Your task to perform on an android device: check google app version Image 0: 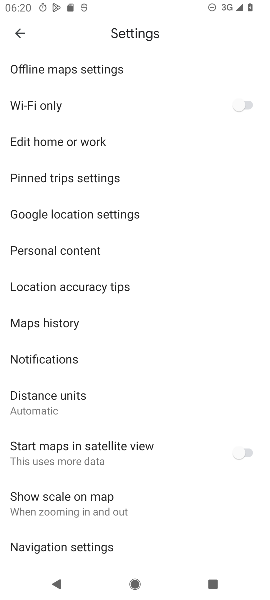
Step 0: press home button
Your task to perform on an android device: check google app version Image 1: 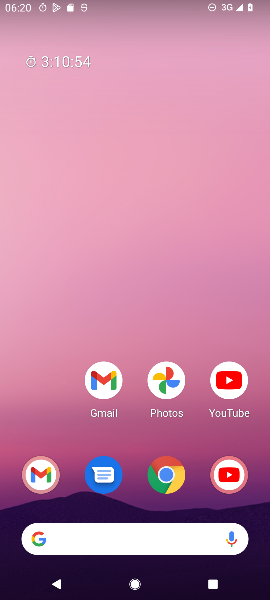
Step 1: drag from (65, 428) to (65, 158)
Your task to perform on an android device: check google app version Image 2: 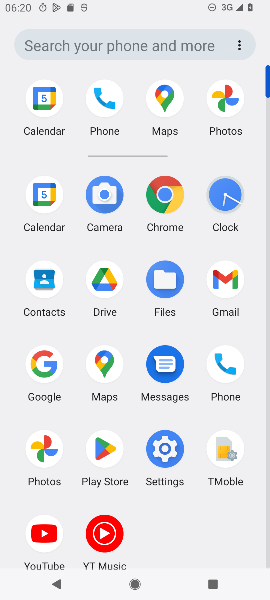
Step 2: click (46, 361)
Your task to perform on an android device: check google app version Image 3: 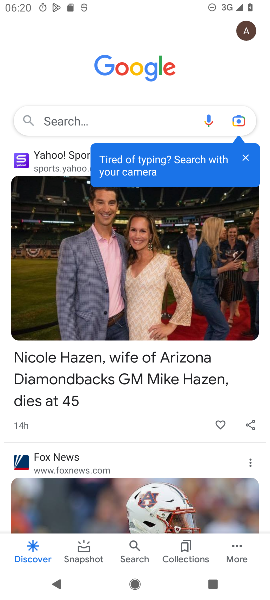
Step 3: click (241, 551)
Your task to perform on an android device: check google app version Image 4: 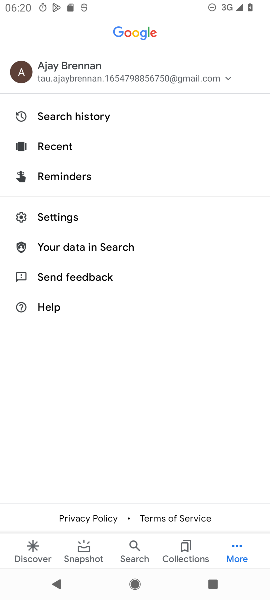
Step 4: click (69, 220)
Your task to perform on an android device: check google app version Image 5: 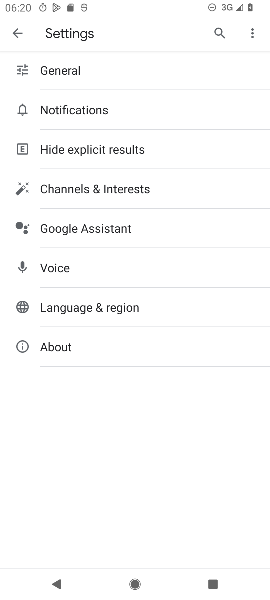
Step 5: click (104, 340)
Your task to perform on an android device: check google app version Image 6: 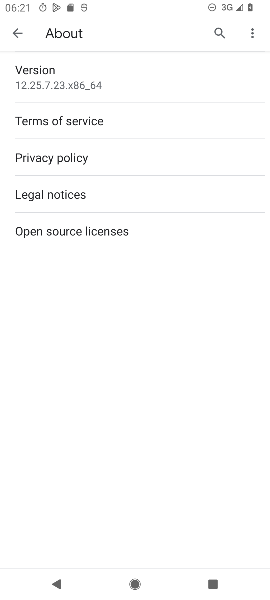
Step 6: task complete